Your task to perform on an android device: Open Google Chrome Image 0: 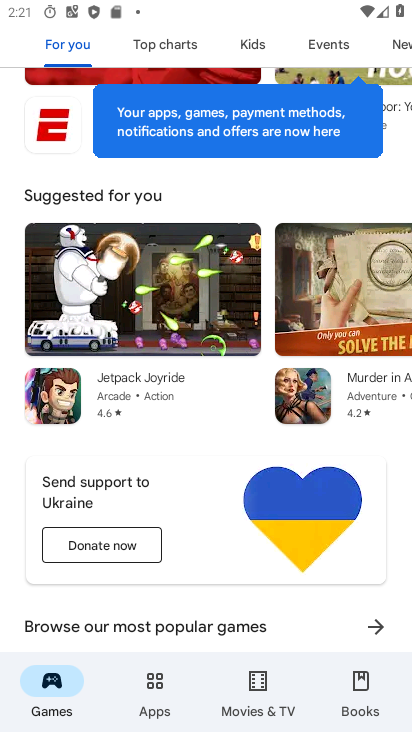
Step 0: drag from (229, 631) to (268, 29)
Your task to perform on an android device: Open Google Chrome Image 1: 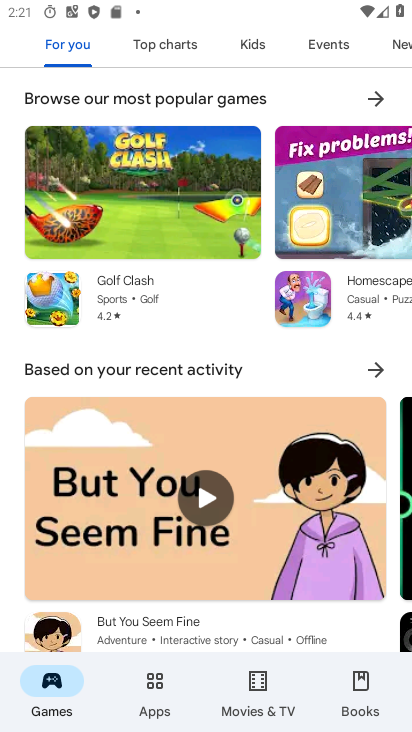
Step 1: drag from (264, 575) to (273, 191)
Your task to perform on an android device: Open Google Chrome Image 2: 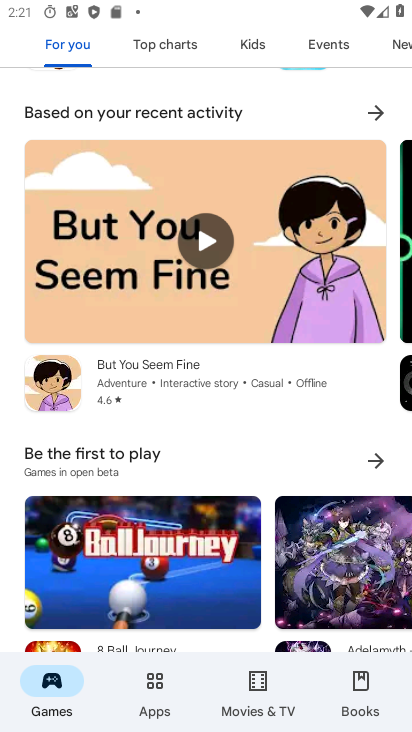
Step 2: drag from (258, 125) to (405, 578)
Your task to perform on an android device: Open Google Chrome Image 3: 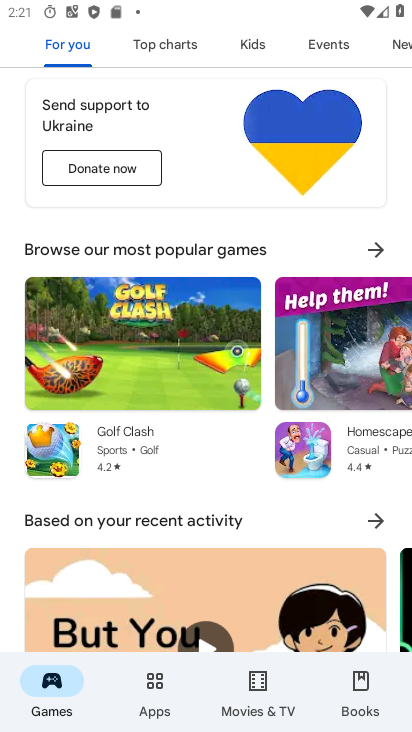
Step 3: drag from (205, 369) to (333, 707)
Your task to perform on an android device: Open Google Chrome Image 4: 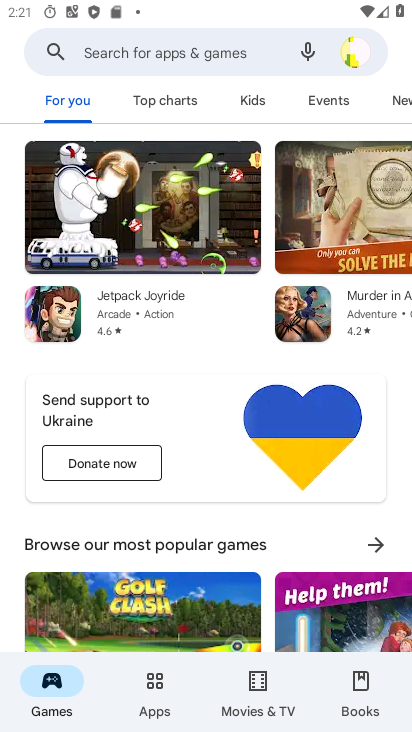
Step 4: press home button
Your task to perform on an android device: Open Google Chrome Image 5: 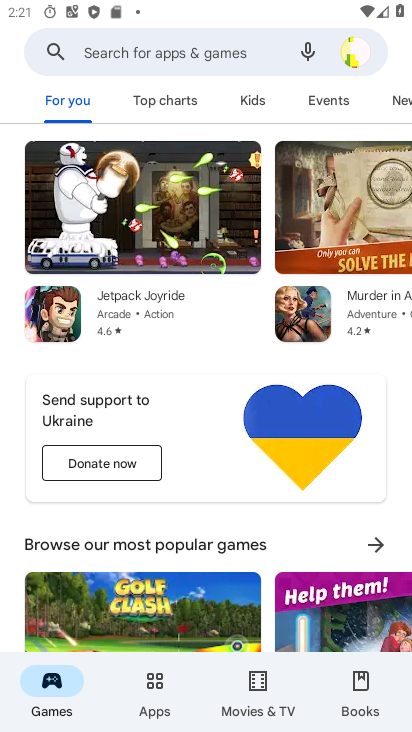
Step 5: drag from (326, 553) to (200, 32)
Your task to perform on an android device: Open Google Chrome Image 6: 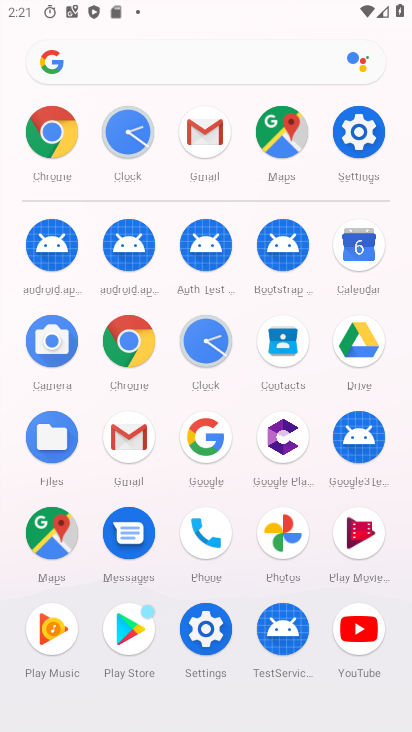
Step 6: click (132, 345)
Your task to perform on an android device: Open Google Chrome Image 7: 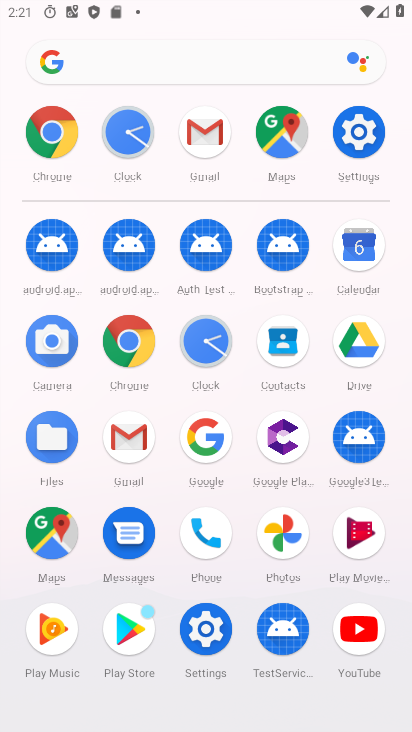
Step 7: click (132, 345)
Your task to perform on an android device: Open Google Chrome Image 8: 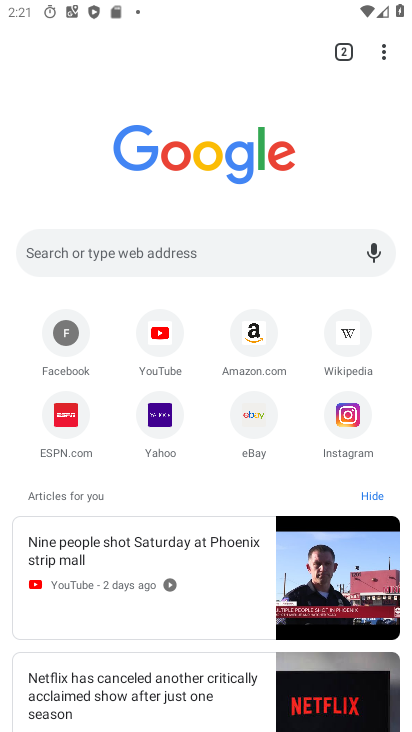
Step 8: task complete